Your task to perform on an android device: open chrome and create a bookmark for the current page Image 0: 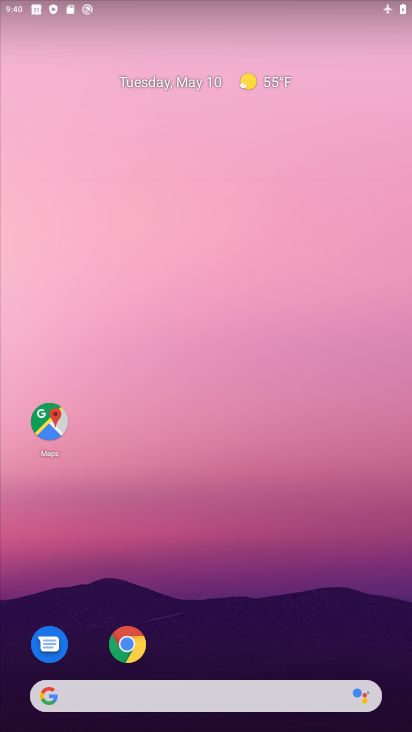
Step 0: drag from (248, 632) to (264, 106)
Your task to perform on an android device: open chrome and create a bookmark for the current page Image 1: 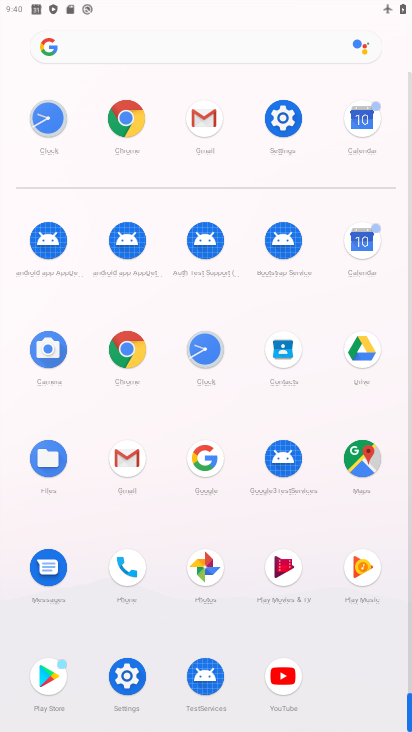
Step 1: click (142, 373)
Your task to perform on an android device: open chrome and create a bookmark for the current page Image 2: 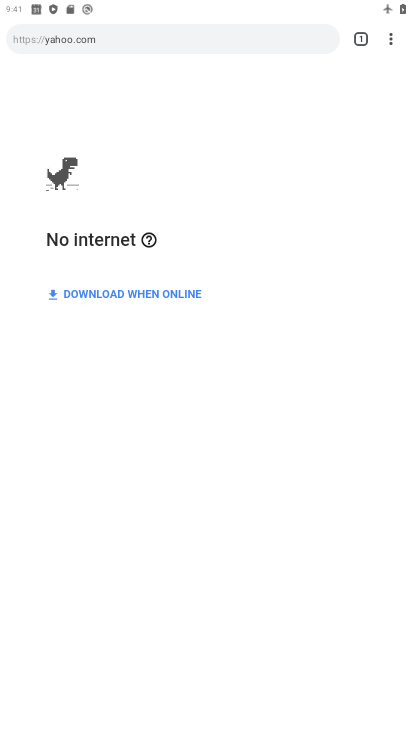
Step 2: task complete